Your task to perform on an android device: Open Chrome and go to the settings page Image 0: 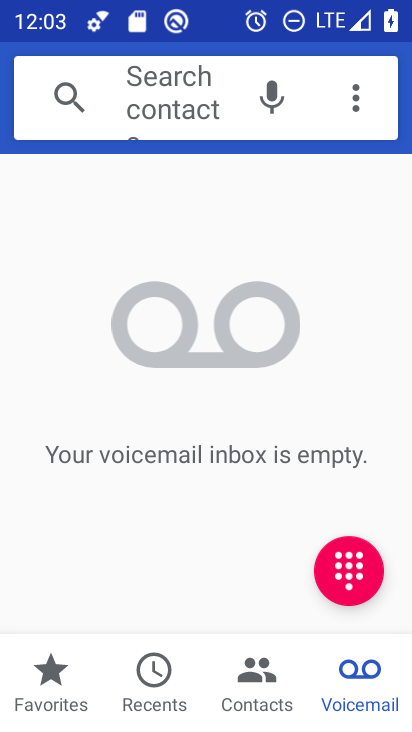
Step 0: press home button
Your task to perform on an android device: Open Chrome and go to the settings page Image 1: 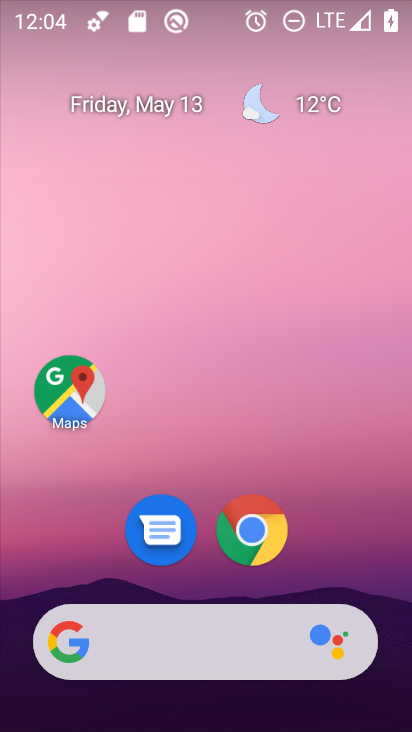
Step 1: drag from (199, 643) to (342, 158)
Your task to perform on an android device: Open Chrome and go to the settings page Image 2: 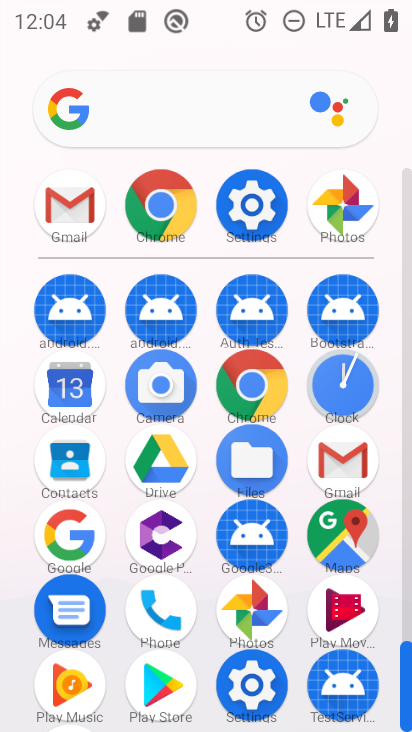
Step 2: click (174, 224)
Your task to perform on an android device: Open Chrome and go to the settings page Image 3: 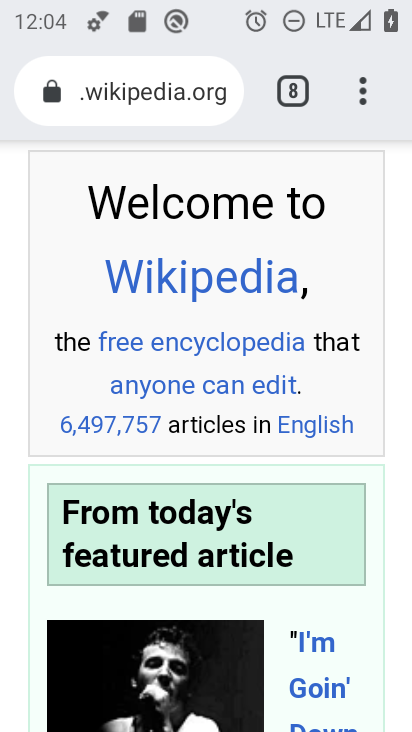
Step 3: task complete